Your task to perform on an android device: Open Google Image 0: 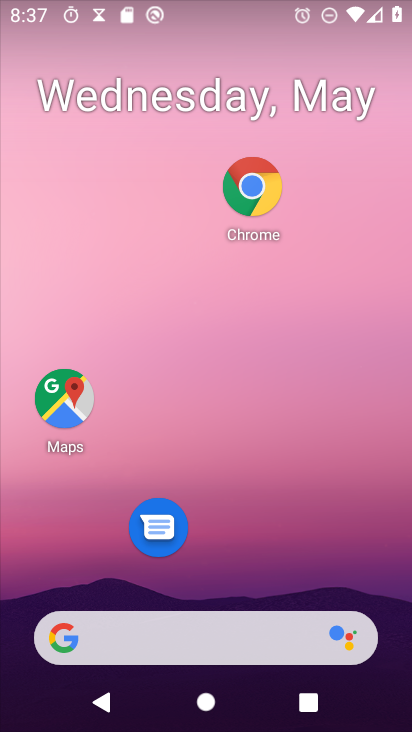
Step 0: press home button
Your task to perform on an android device: Open Google Image 1: 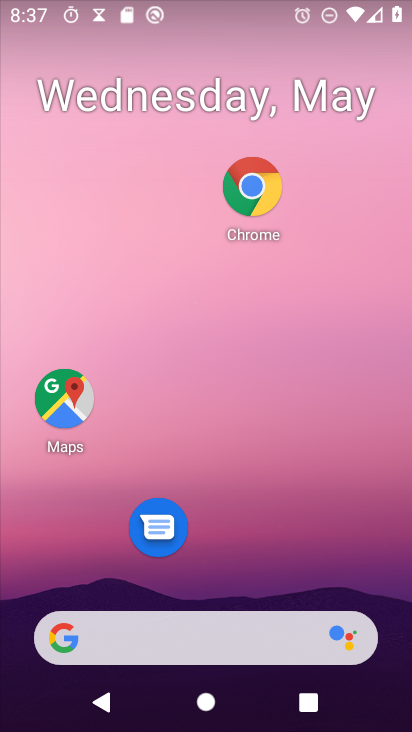
Step 1: drag from (267, 531) to (334, 105)
Your task to perform on an android device: Open Google Image 2: 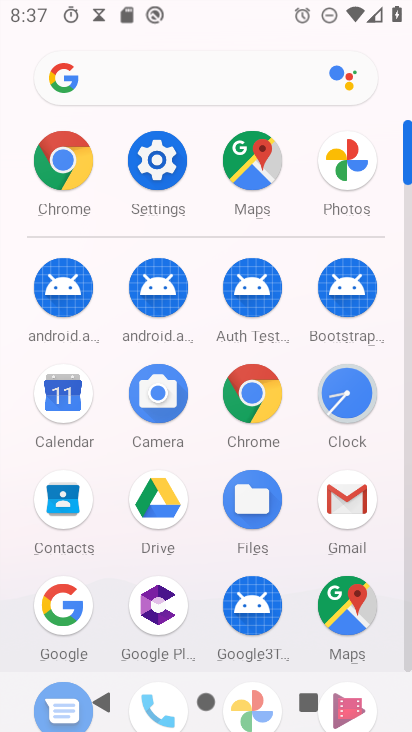
Step 2: click (57, 606)
Your task to perform on an android device: Open Google Image 3: 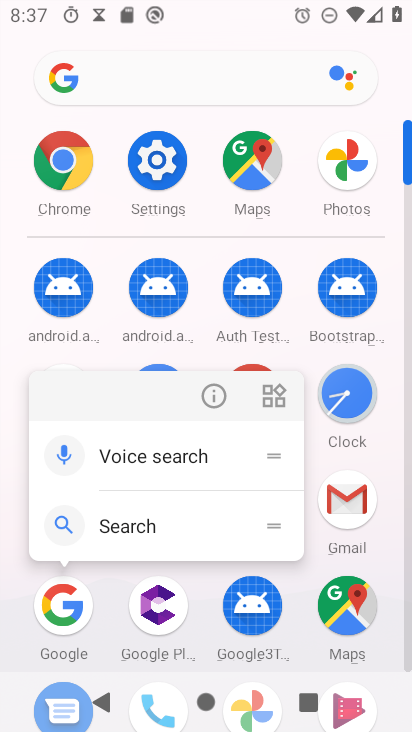
Step 3: click (47, 604)
Your task to perform on an android device: Open Google Image 4: 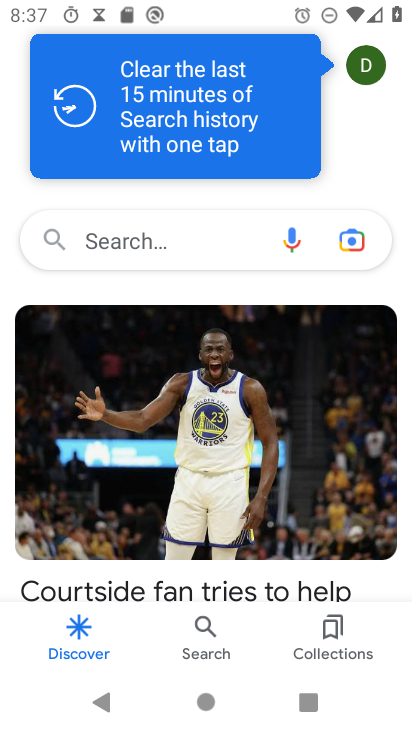
Step 4: task complete